Your task to perform on an android device: change text size in settings app Image 0: 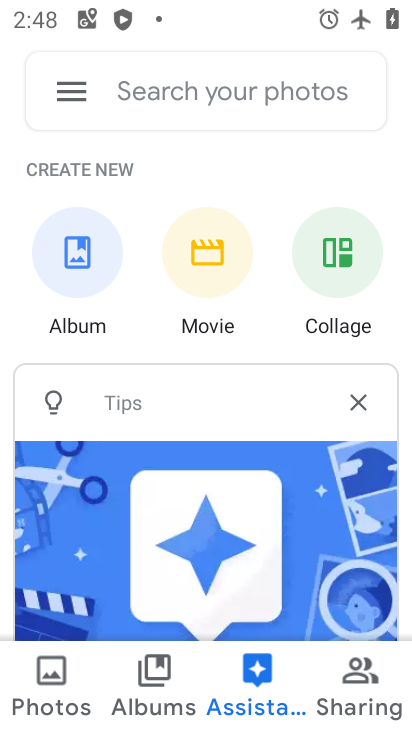
Step 0: press home button
Your task to perform on an android device: change text size in settings app Image 1: 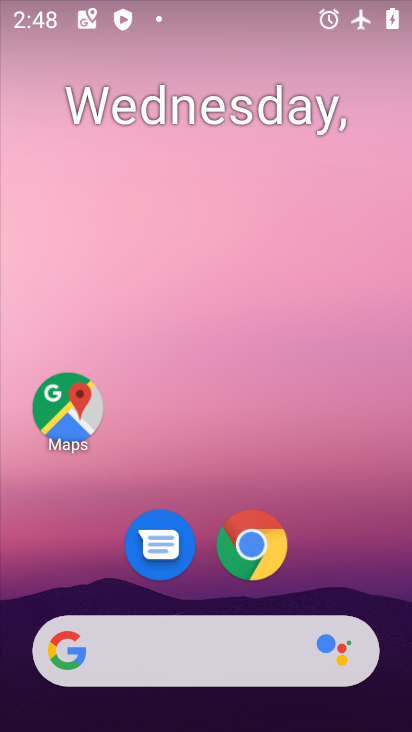
Step 1: drag from (324, 515) to (367, 204)
Your task to perform on an android device: change text size in settings app Image 2: 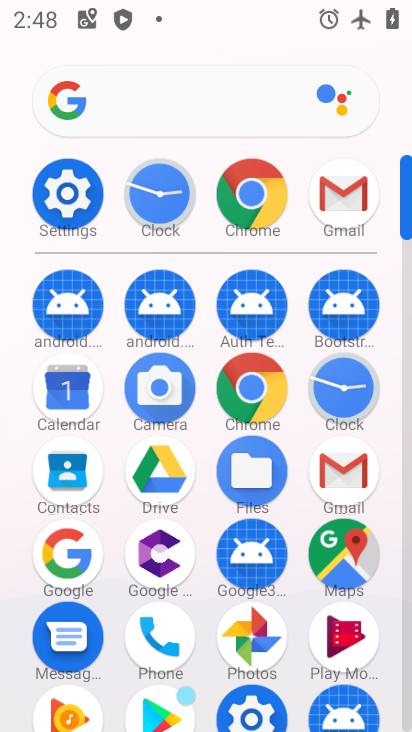
Step 2: click (59, 196)
Your task to perform on an android device: change text size in settings app Image 3: 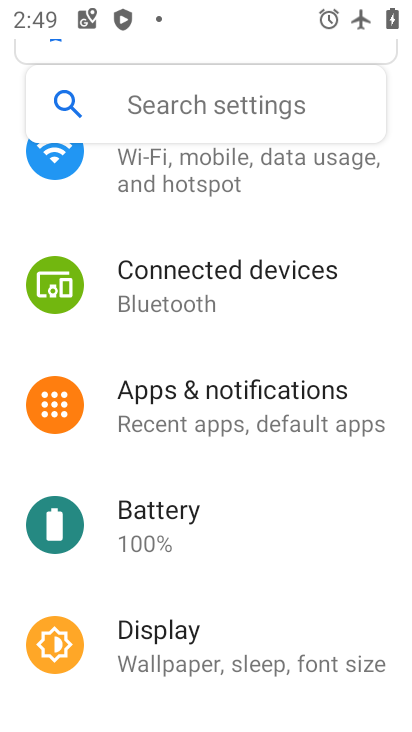
Step 3: click (158, 642)
Your task to perform on an android device: change text size in settings app Image 4: 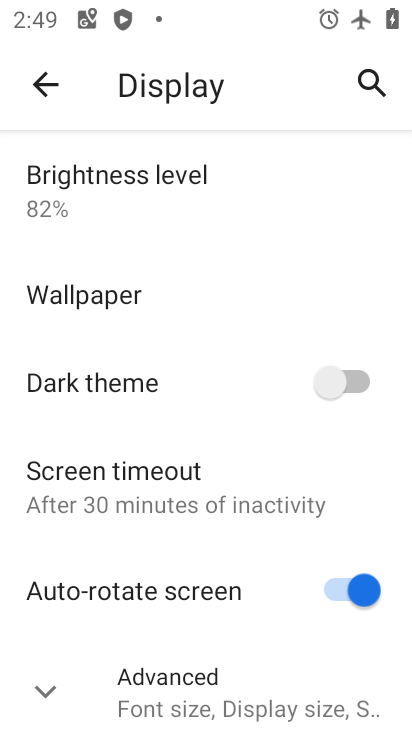
Step 4: click (169, 673)
Your task to perform on an android device: change text size in settings app Image 5: 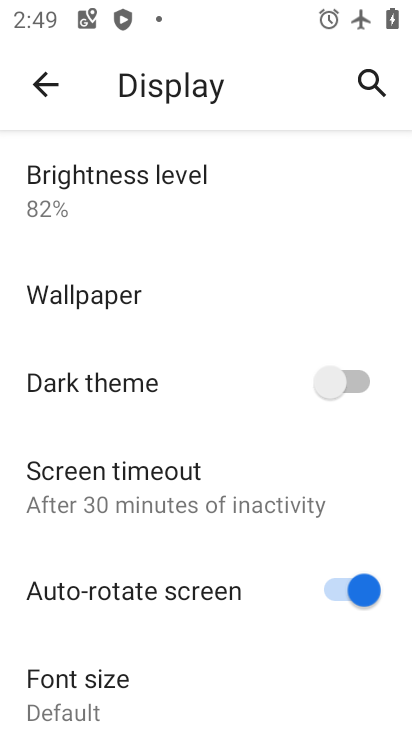
Step 5: click (109, 675)
Your task to perform on an android device: change text size in settings app Image 6: 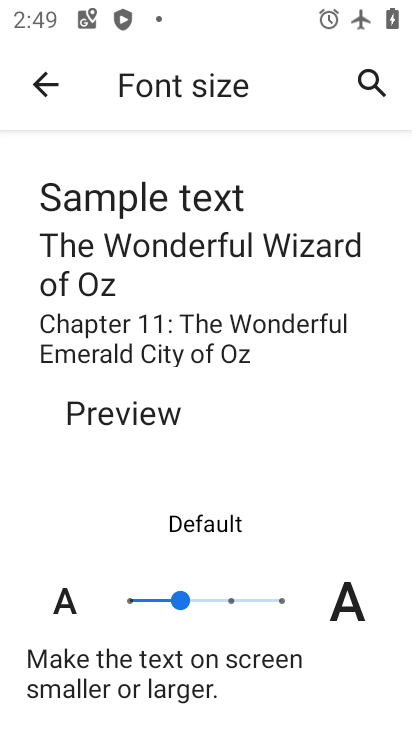
Step 6: click (142, 601)
Your task to perform on an android device: change text size in settings app Image 7: 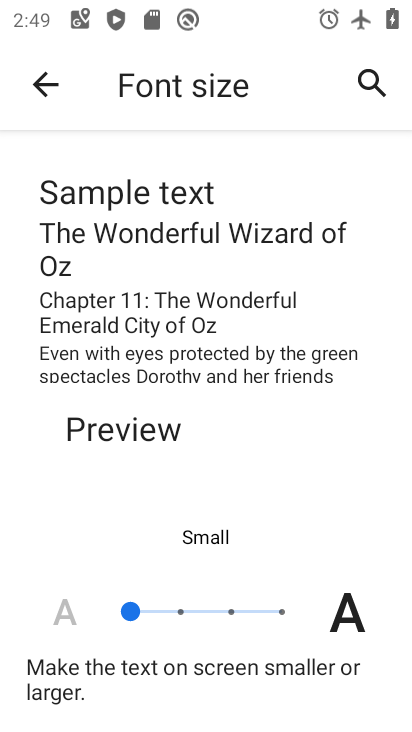
Step 7: task complete